Your task to perform on an android device: install app "Pandora - Music & Podcasts" Image 0: 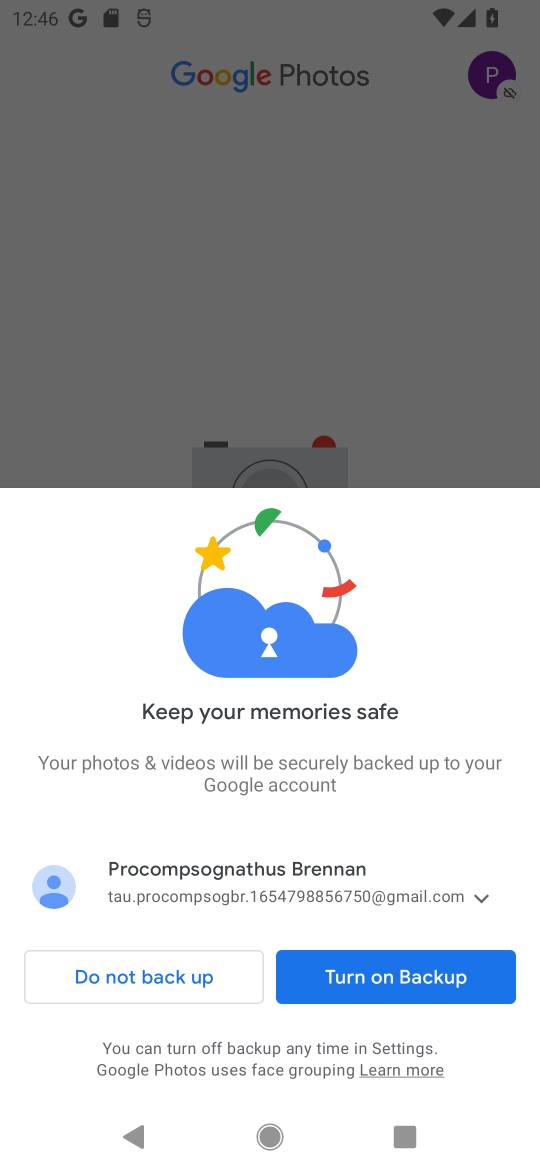
Step 0: press back button
Your task to perform on an android device: install app "Pandora - Music & Podcasts" Image 1: 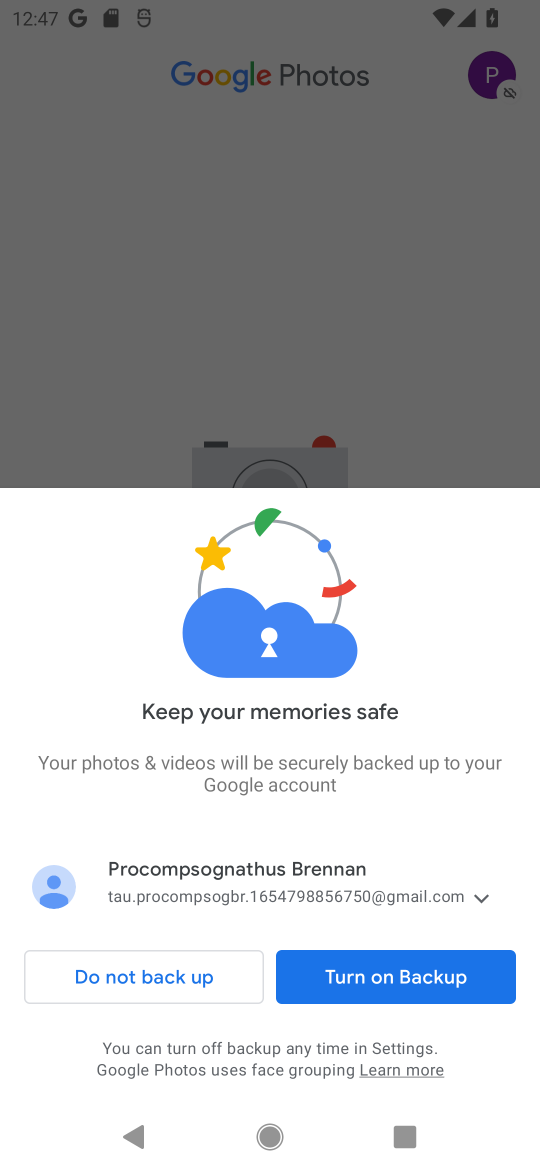
Step 1: press home button
Your task to perform on an android device: install app "Pandora - Music & Podcasts" Image 2: 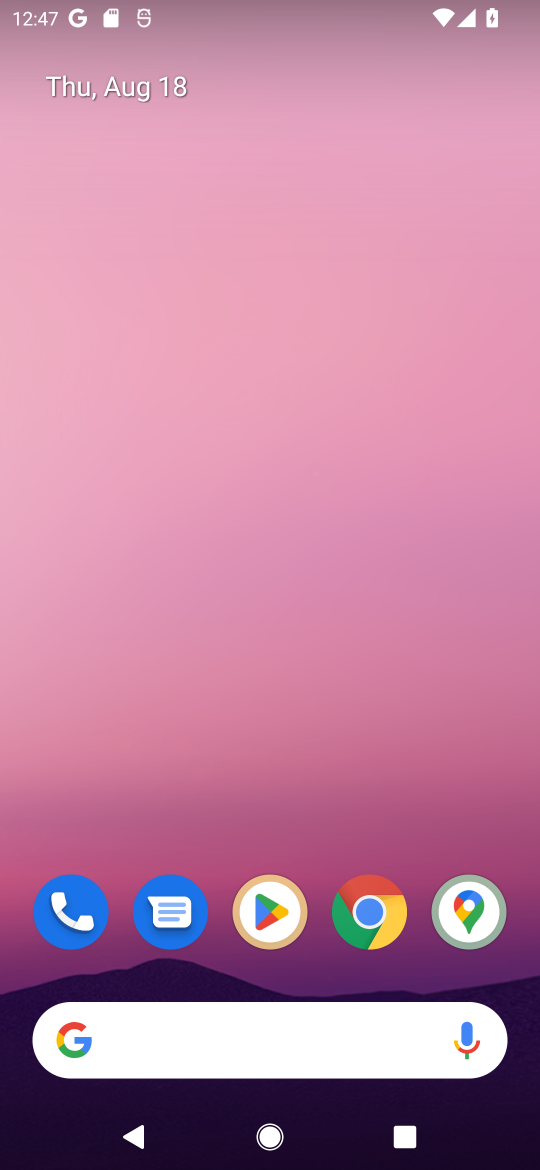
Step 2: click (287, 906)
Your task to perform on an android device: install app "Pandora - Music & Podcasts" Image 3: 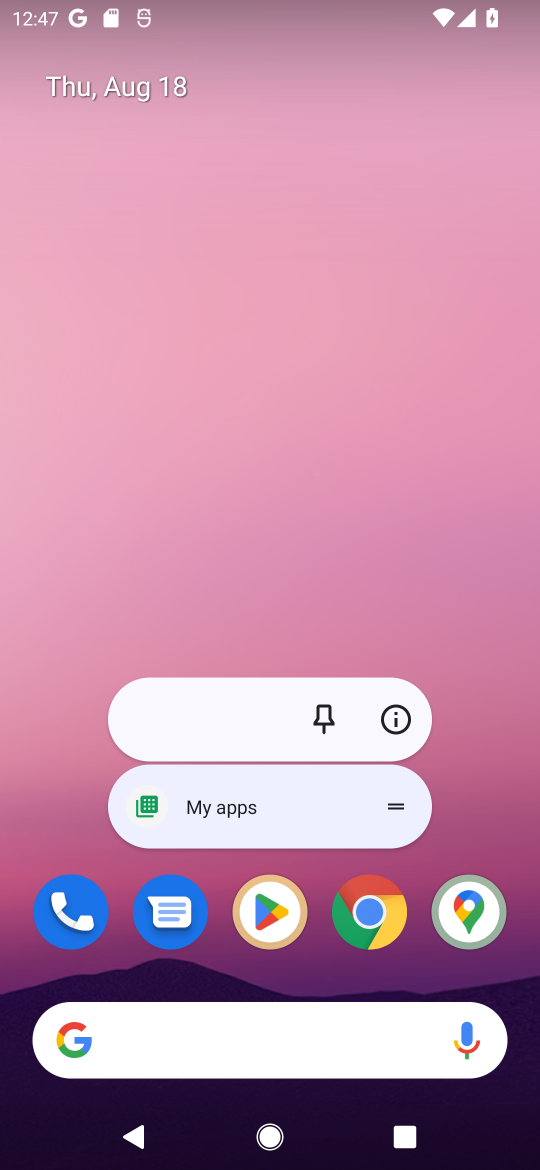
Step 3: click (274, 913)
Your task to perform on an android device: install app "Pandora - Music & Podcasts" Image 4: 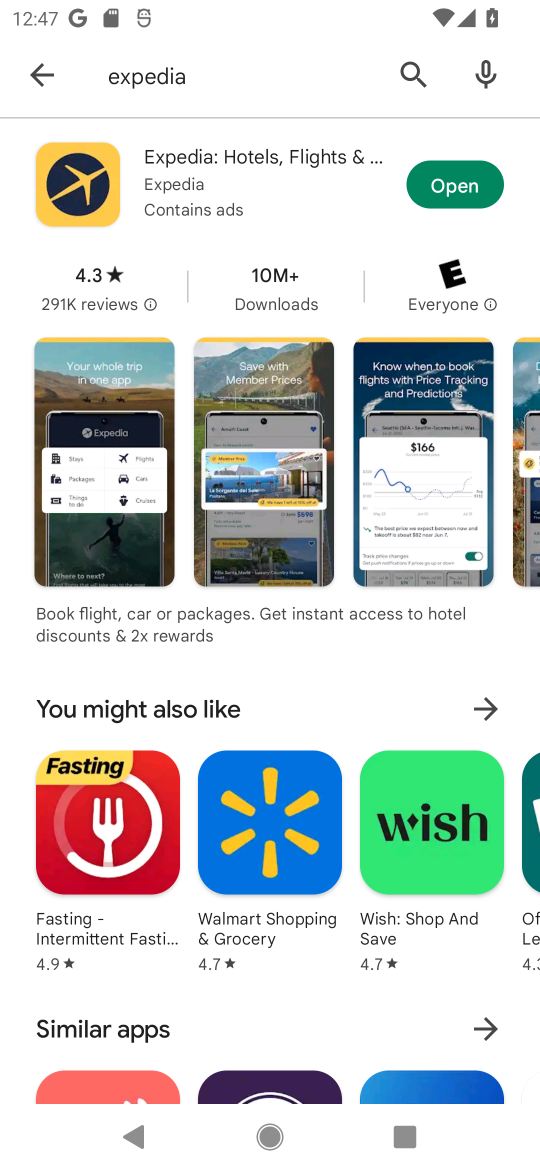
Step 4: click (398, 87)
Your task to perform on an android device: install app "Pandora - Music & Podcasts" Image 5: 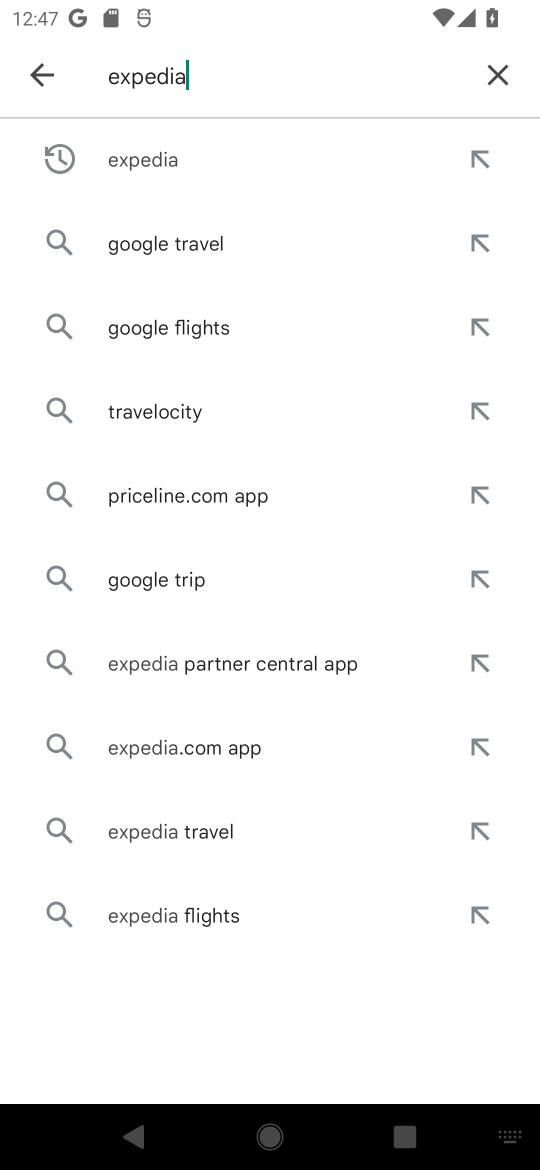
Step 5: click (497, 66)
Your task to perform on an android device: install app "Pandora - Music & Podcasts" Image 6: 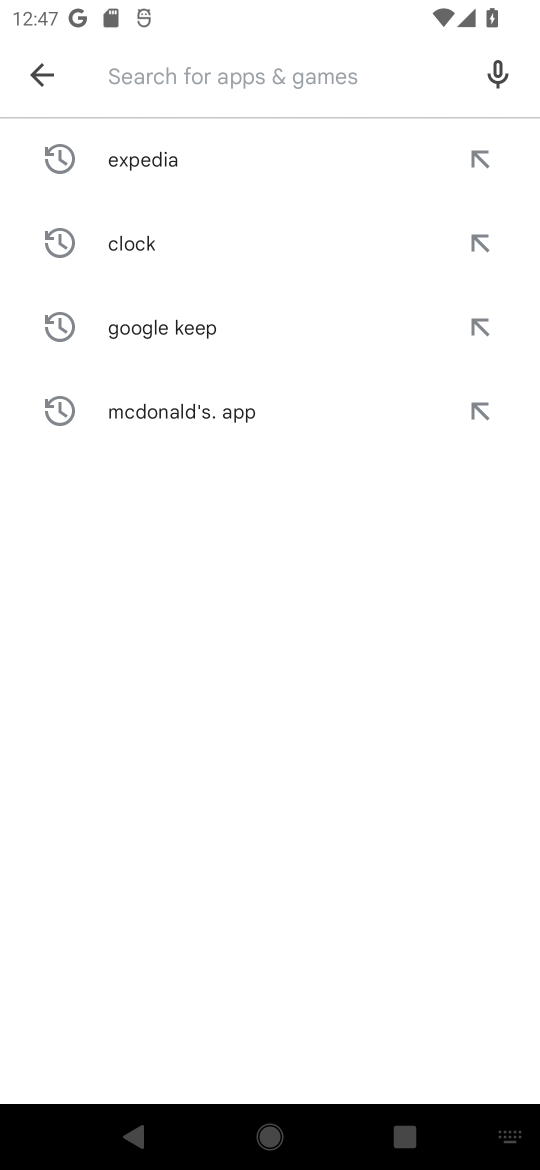
Step 6: type "pandora"
Your task to perform on an android device: install app "Pandora - Music & Podcasts" Image 7: 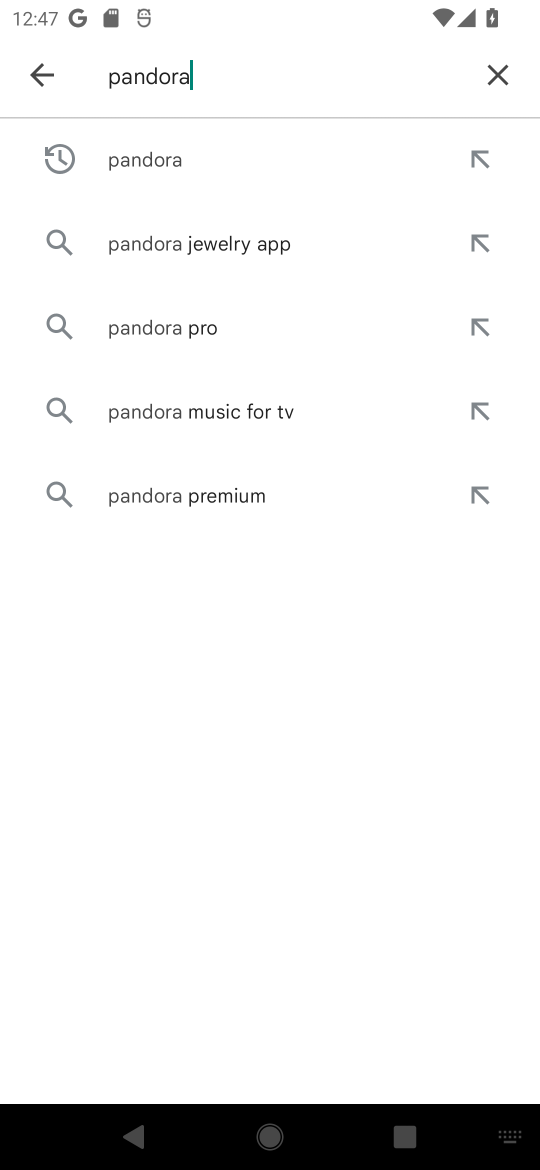
Step 7: click (157, 152)
Your task to perform on an android device: install app "Pandora - Music & Podcasts" Image 8: 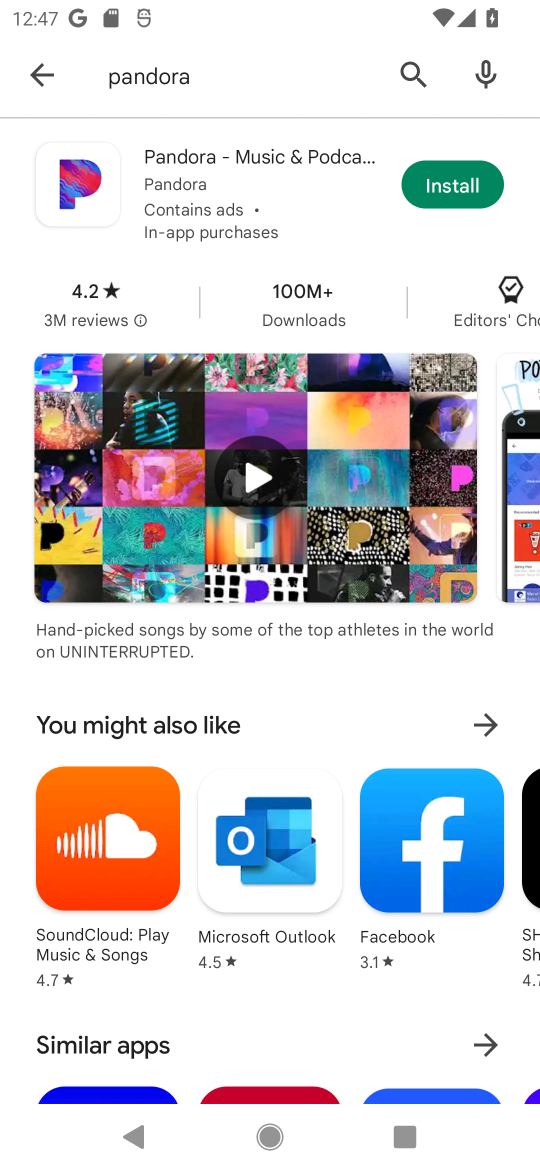
Step 8: click (471, 184)
Your task to perform on an android device: install app "Pandora - Music & Podcasts" Image 9: 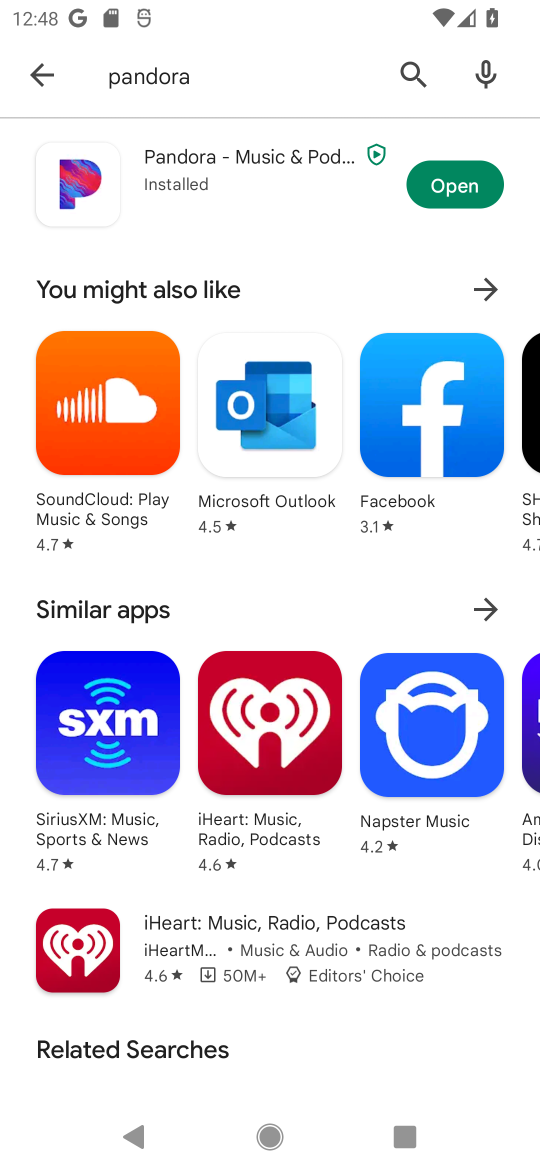
Step 9: click (430, 189)
Your task to perform on an android device: install app "Pandora - Music & Podcasts" Image 10: 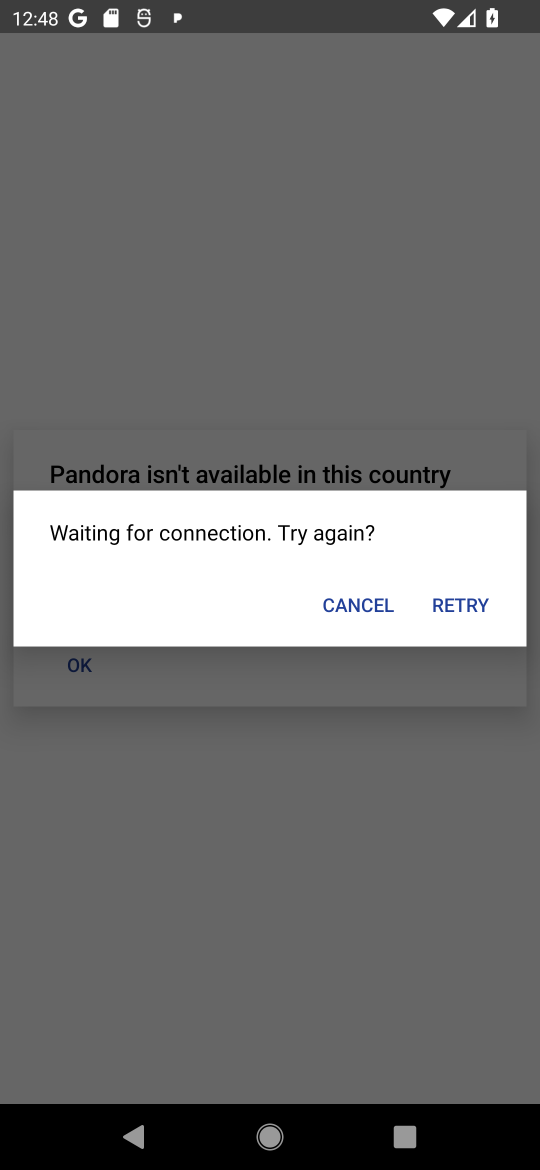
Step 10: click (339, 598)
Your task to perform on an android device: install app "Pandora - Music & Podcasts" Image 11: 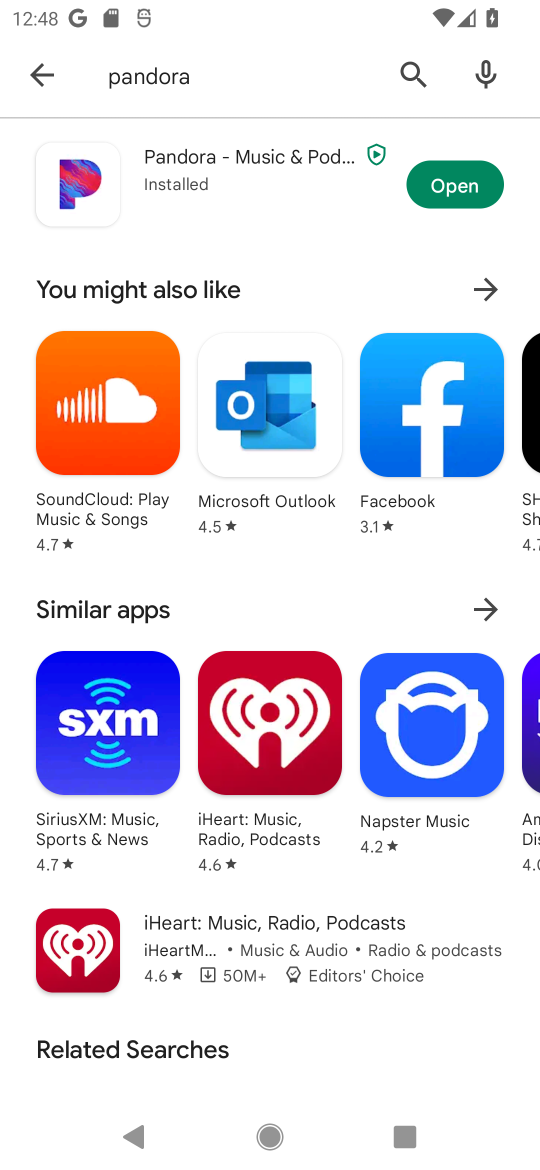
Step 11: task complete